Your task to perform on an android device: When is my next meeting? Image 0: 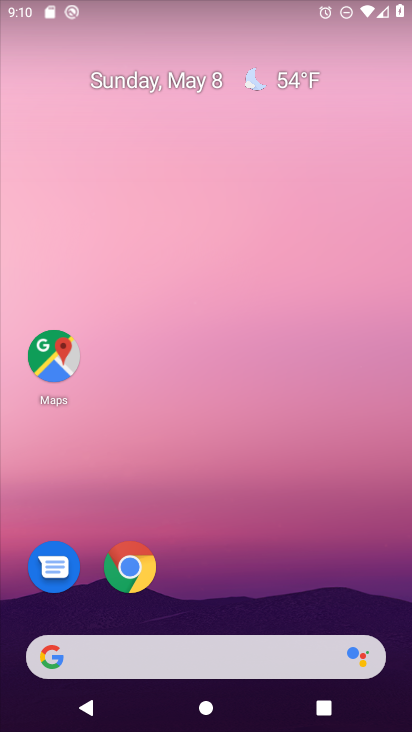
Step 0: drag from (347, 511) to (249, 61)
Your task to perform on an android device: When is my next meeting? Image 1: 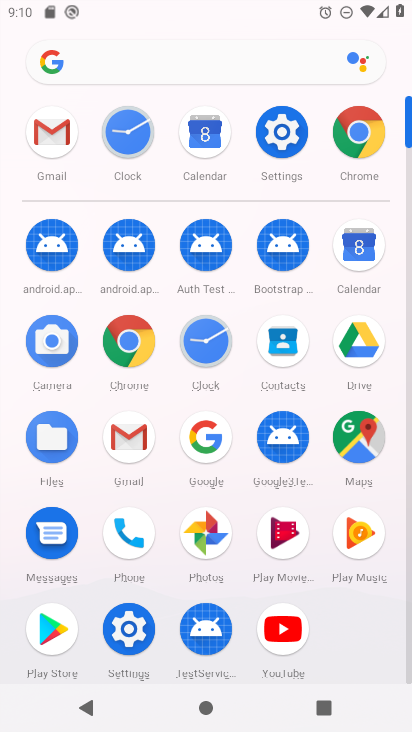
Step 1: click (365, 248)
Your task to perform on an android device: When is my next meeting? Image 2: 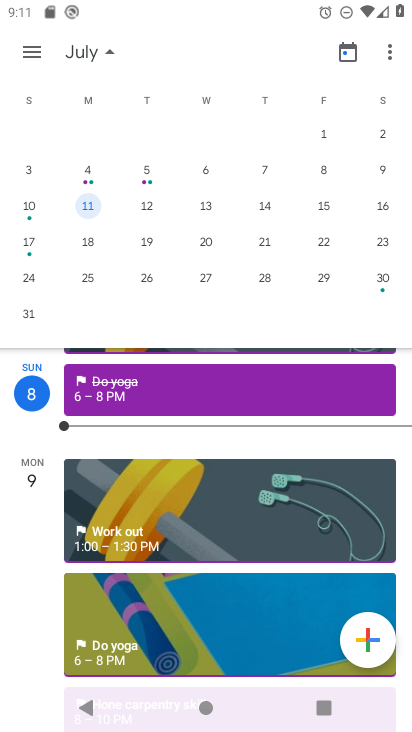
Step 2: click (18, 244)
Your task to perform on an android device: When is my next meeting? Image 3: 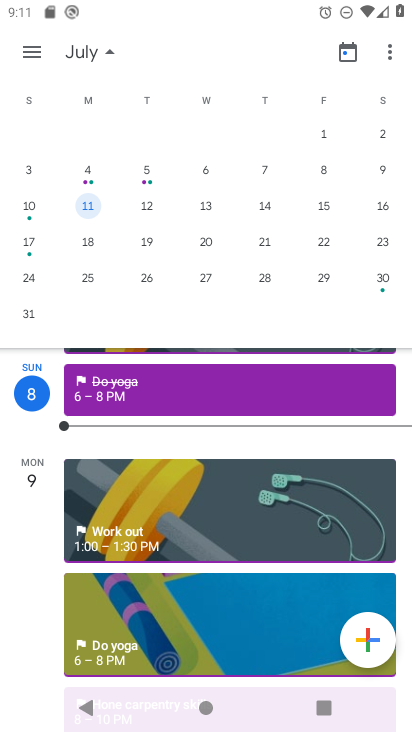
Step 3: click (24, 247)
Your task to perform on an android device: When is my next meeting? Image 4: 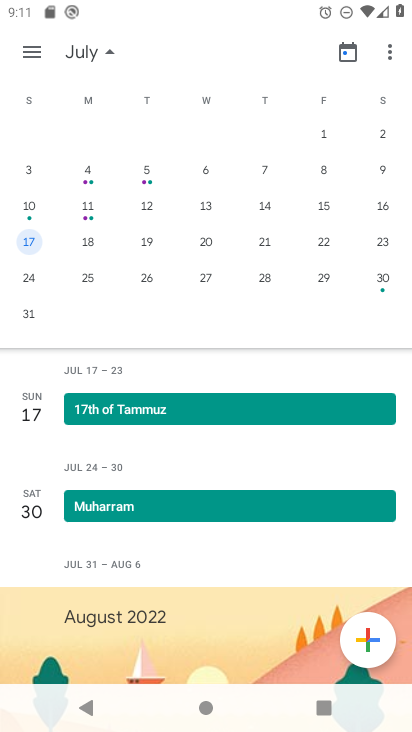
Step 4: click (339, 351)
Your task to perform on an android device: When is my next meeting? Image 5: 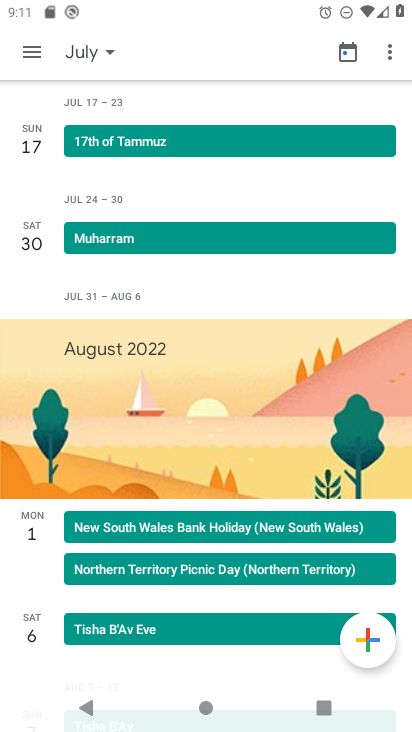
Step 5: task complete